Your task to perform on an android device: refresh tabs in the chrome app Image 0: 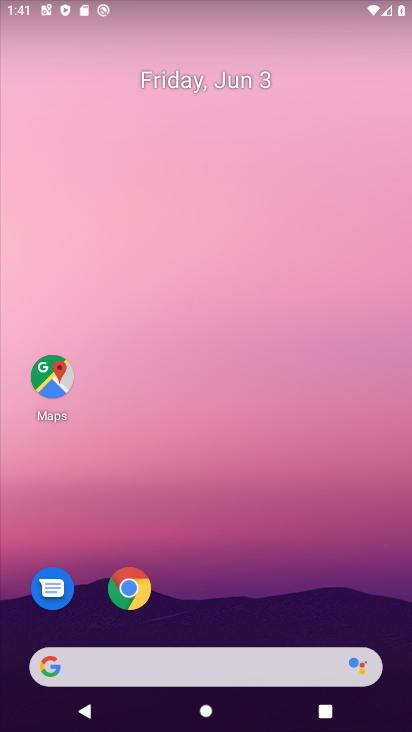
Step 0: click (135, 583)
Your task to perform on an android device: refresh tabs in the chrome app Image 1: 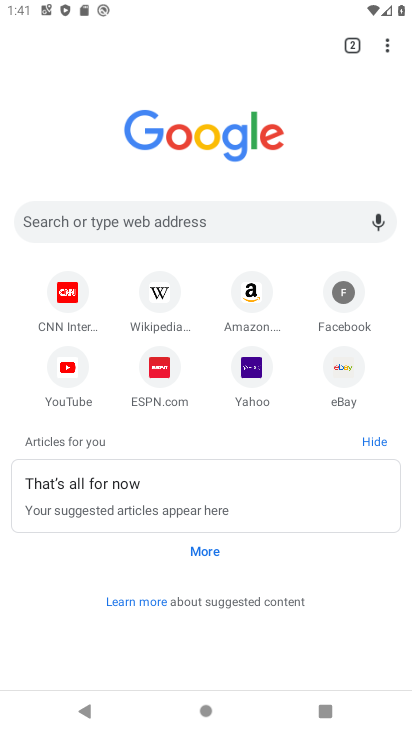
Step 1: click (382, 42)
Your task to perform on an android device: refresh tabs in the chrome app Image 2: 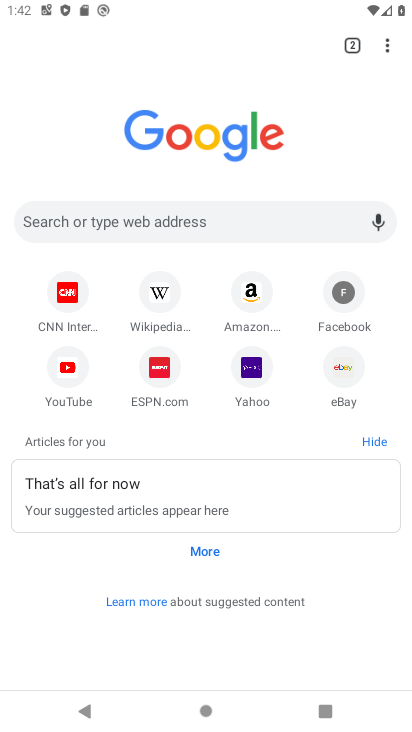
Step 2: click (387, 44)
Your task to perform on an android device: refresh tabs in the chrome app Image 3: 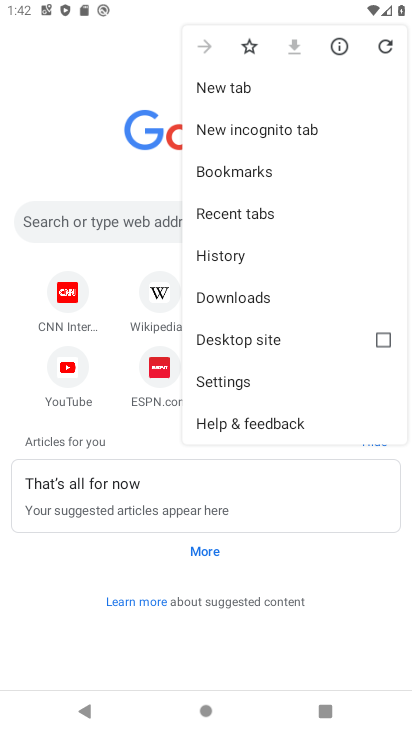
Step 3: click (387, 52)
Your task to perform on an android device: refresh tabs in the chrome app Image 4: 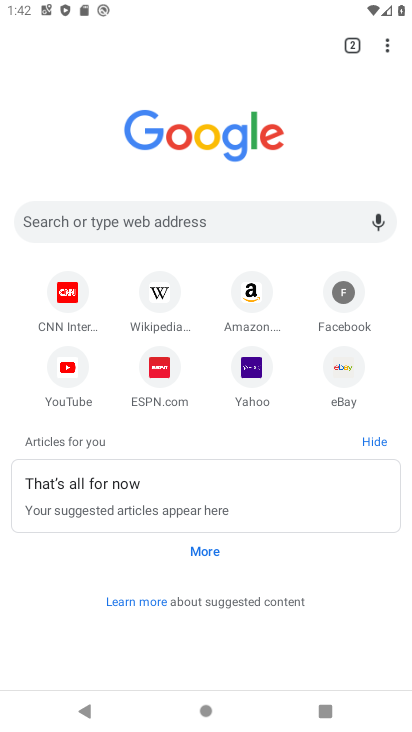
Step 4: task complete